Your task to perform on an android device: turn on the 24-hour format for clock Image 0: 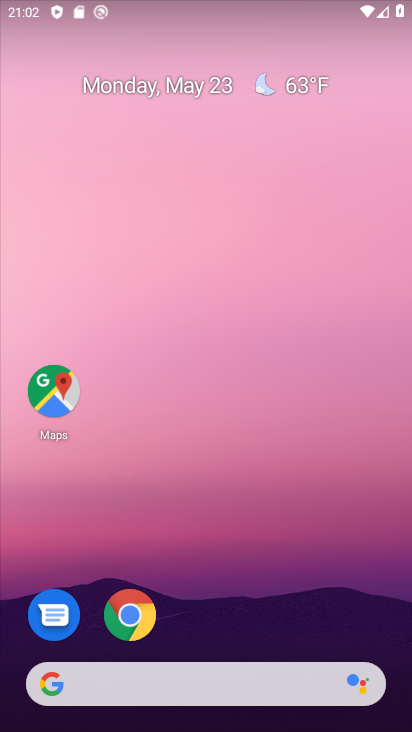
Step 0: drag from (233, 504) to (267, 82)
Your task to perform on an android device: turn on the 24-hour format for clock Image 1: 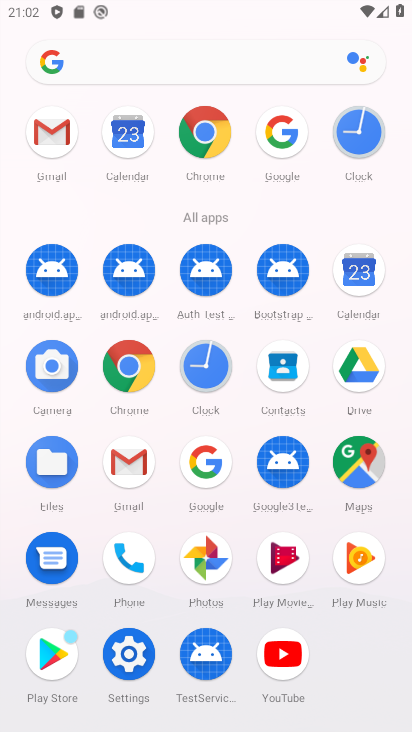
Step 1: click (357, 131)
Your task to perform on an android device: turn on the 24-hour format for clock Image 2: 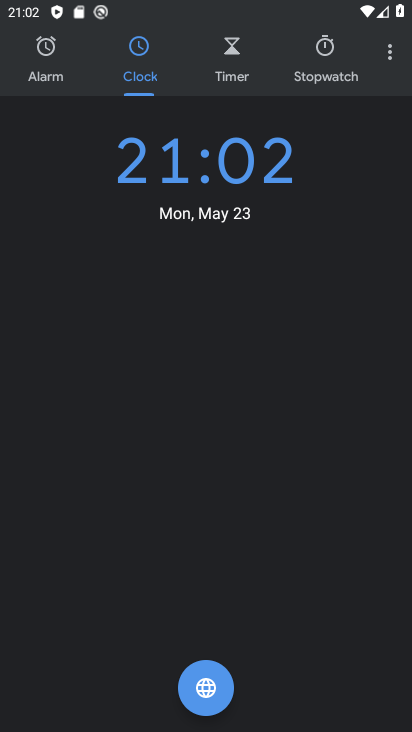
Step 2: click (376, 58)
Your task to perform on an android device: turn on the 24-hour format for clock Image 3: 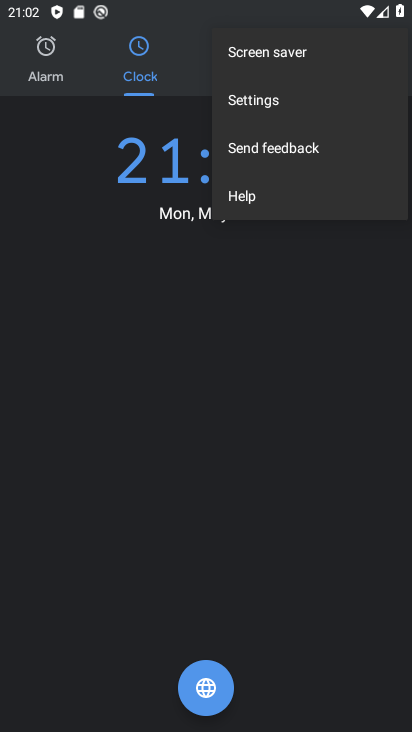
Step 3: click (276, 113)
Your task to perform on an android device: turn on the 24-hour format for clock Image 4: 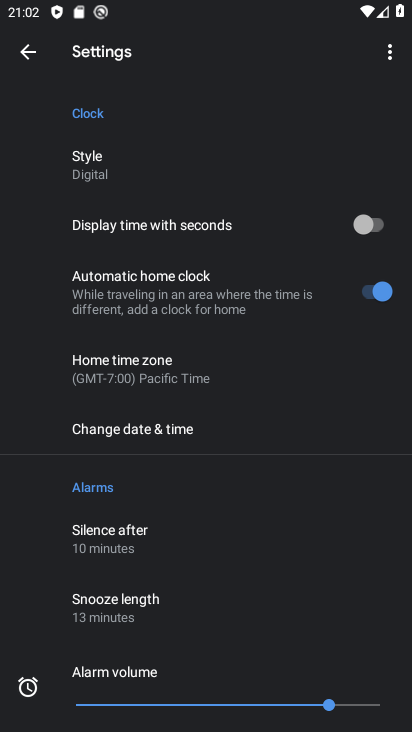
Step 4: click (195, 434)
Your task to perform on an android device: turn on the 24-hour format for clock Image 5: 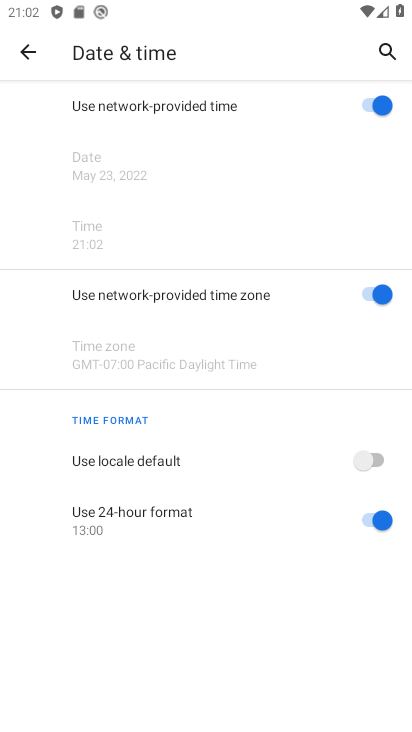
Step 5: task complete